Your task to perform on an android device: Open Yahoo.com Image 0: 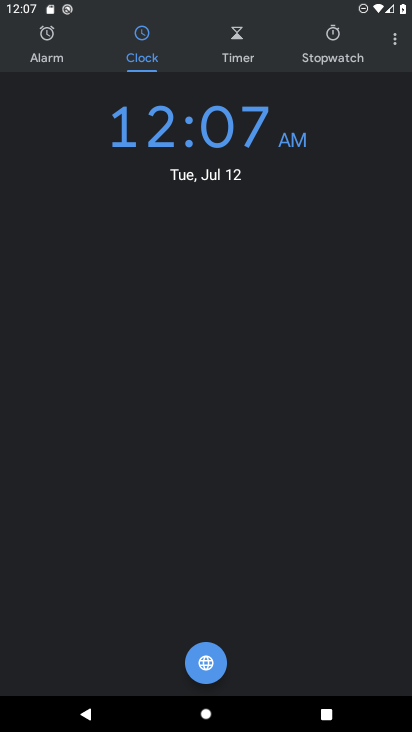
Step 0: press home button
Your task to perform on an android device: Open Yahoo.com Image 1: 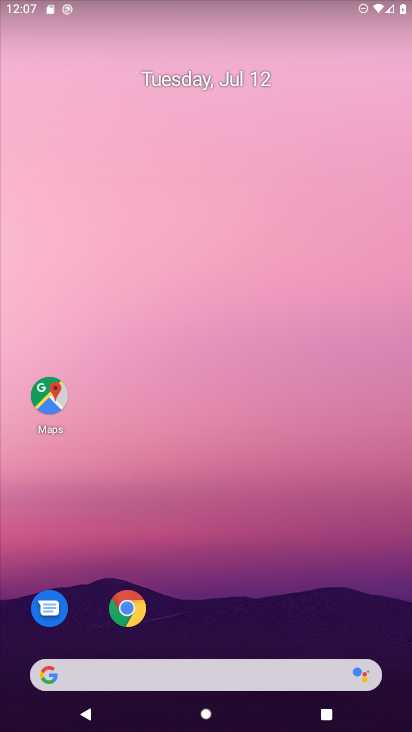
Step 1: drag from (189, 630) to (152, 53)
Your task to perform on an android device: Open Yahoo.com Image 2: 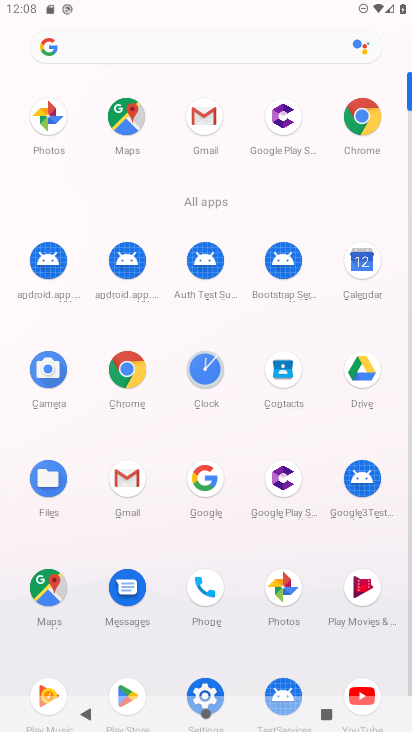
Step 2: click (125, 388)
Your task to perform on an android device: Open Yahoo.com Image 3: 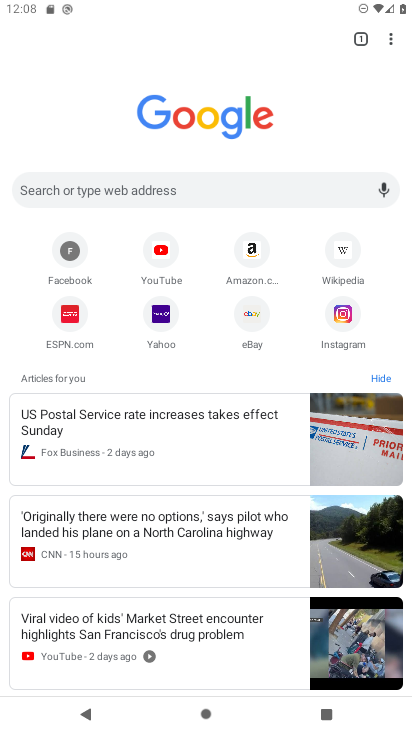
Step 3: click (147, 321)
Your task to perform on an android device: Open Yahoo.com Image 4: 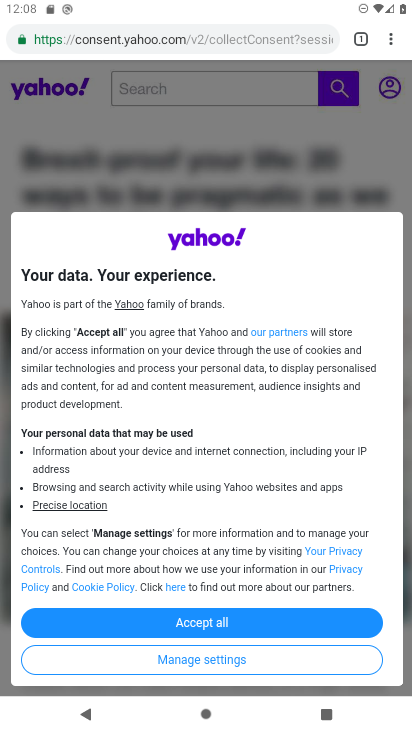
Step 4: task complete